Your task to perform on an android device: Set the phone to "Do not disturb". Image 0: 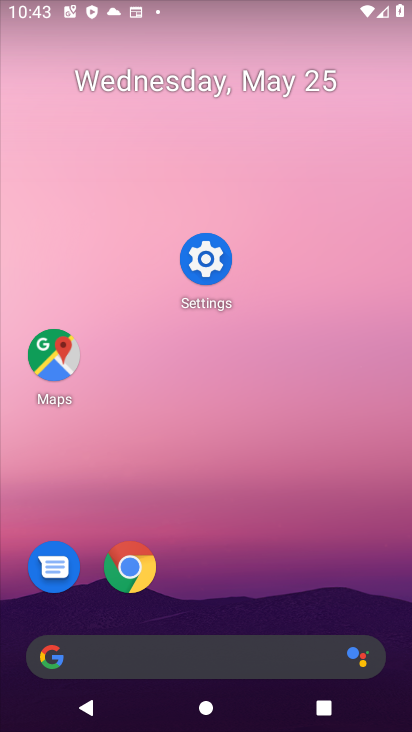
Step 0: click (217, 290)
Your task to perform on an android device: Set the phone to "Do not disturb". Image 1: 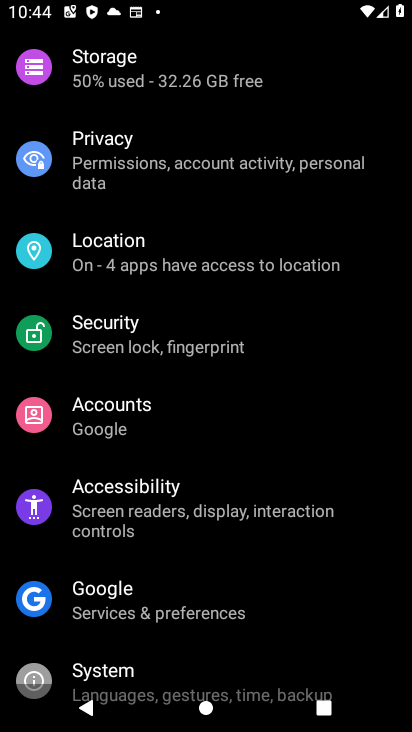
Step 1: drag from (280, 241) to (262, 330)
Your task to perform on an android device: Set the phone to "Do not disturb". Image 2: 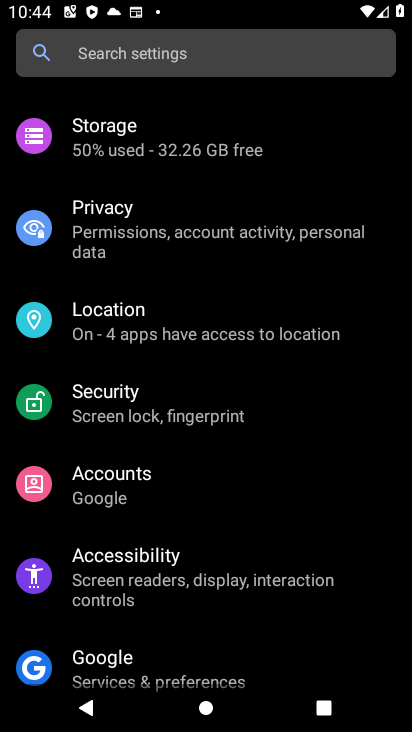
Step 2: click (373, 459)
Your task to perform on an android device: Set the phone to "Do not disturb". Image 3: 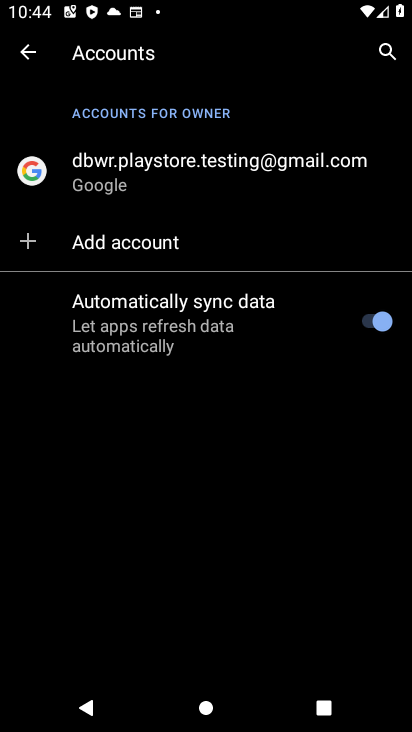
Step 3: drag from (300, 321) to (297, 432)
Your task to perform on an android device: Set the phone to "Do not disturb". Image 4: 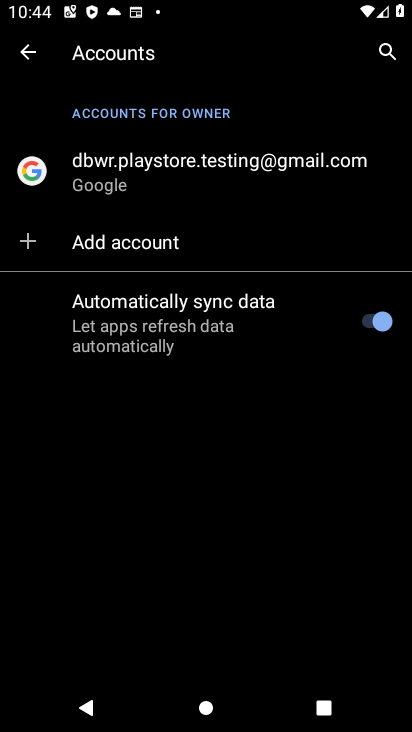
Step 4: click (34, 54)
Your task to perform on an android device: Set the phone to "Do not disturb". Image 5: 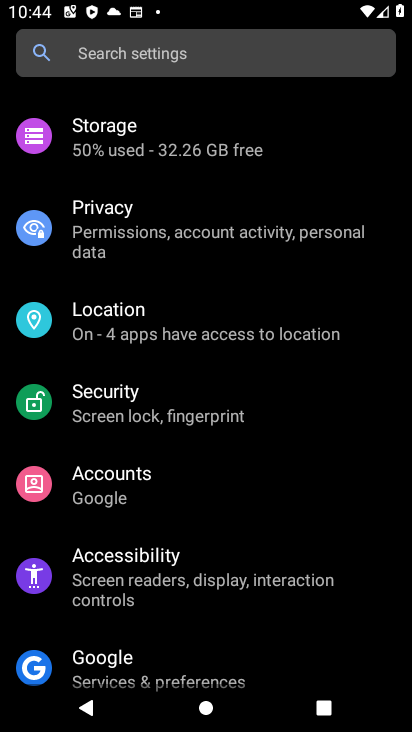
Step 5: task complete